Your task to perform on an android device: Open Youtube and go to the subscriptions tab Image 0: 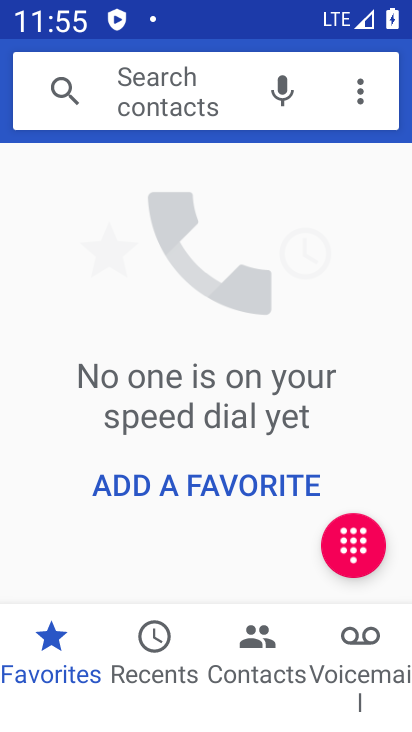
Step 0: press home button
Your task to perform on an android device: Open Youtube and go to the subscriptions tab Image 1: 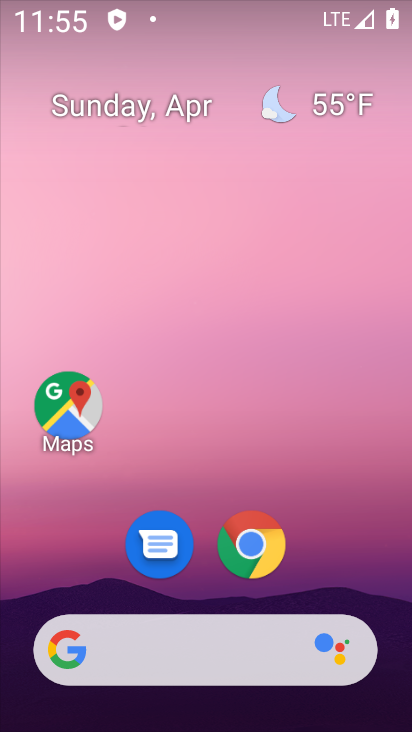
Step 1: drag from (319, 535) to (116, 135)
Your task to perform on an android device: Open Youtube and go to the subscriptions tab Image 2: 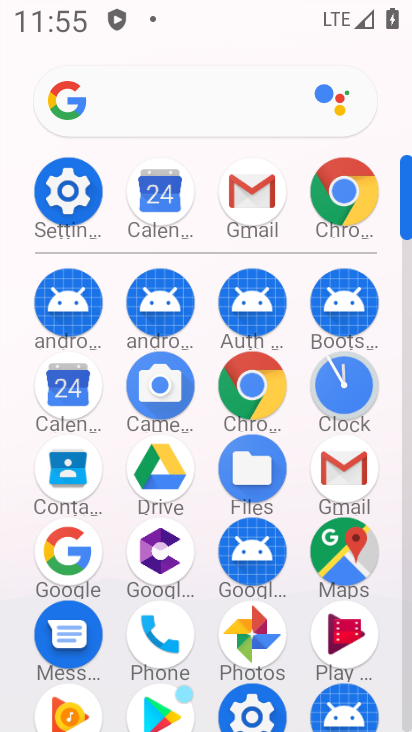
Step 2: drag from (207, 488) to (210, 148)
Your task to perform on an android device: Open Youtube and go to the subscriptions tab Image 3: 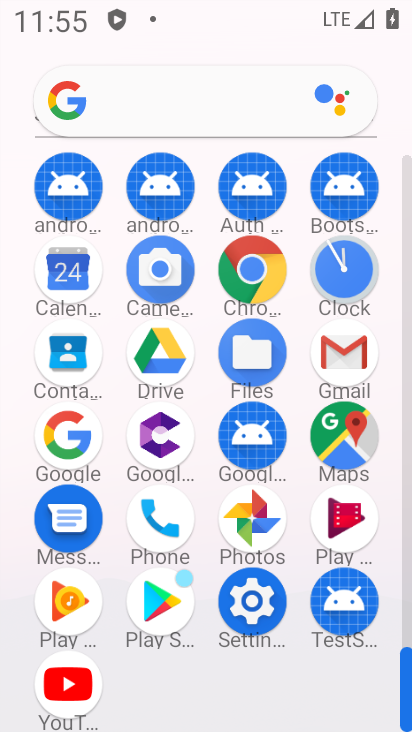
Step 3: click (58, 682)
Your task to perform on an android device: Open Youtube and go to the subscriptions tab Image 4: 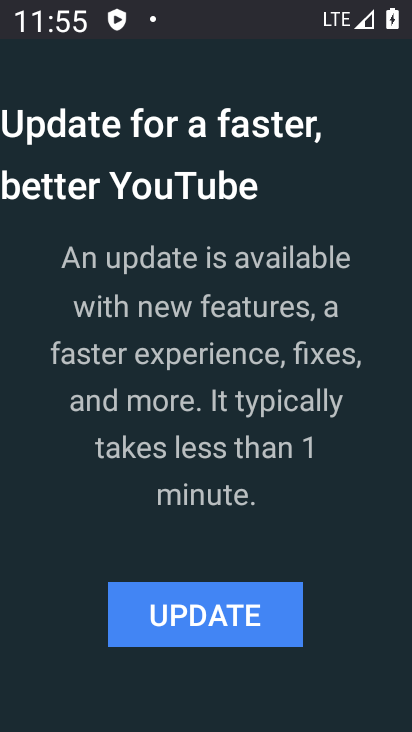
Step 4: click (204, 608)
Your task to perform on an android device: Open Youtube and go to the subscriptions tab Image 5: 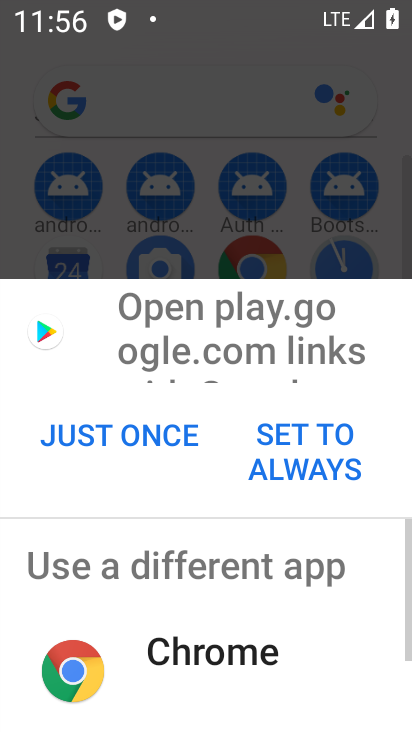
Step 5: click (138, 433)
Your task to perform on an android device: Open Youtube and go to the subscriptions tab Image 6: 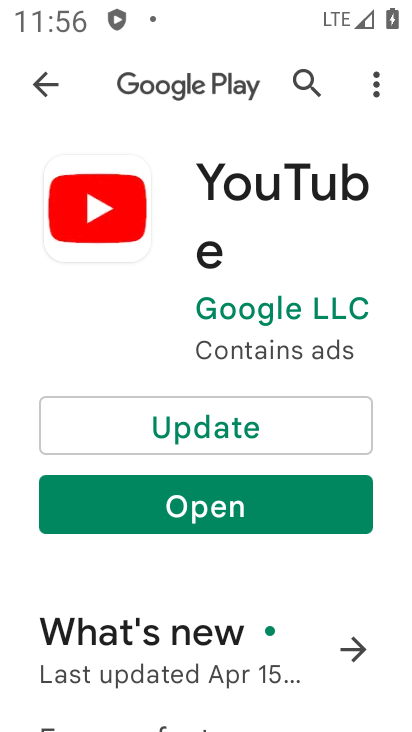
Step 6: click (138, 433)
Your task to perform on an android device: Open Youtube and go to the subscriptions tab Image 7: 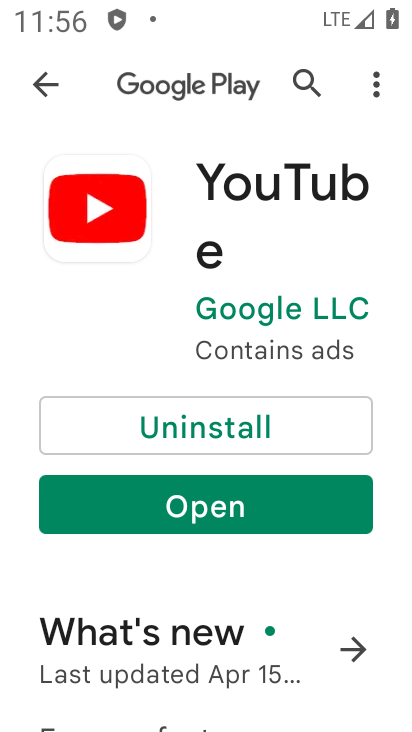
Step 7: click (221, 509)
Your task to perform on an android device: Open Youtube and go to the subscriptions tab Image 8: 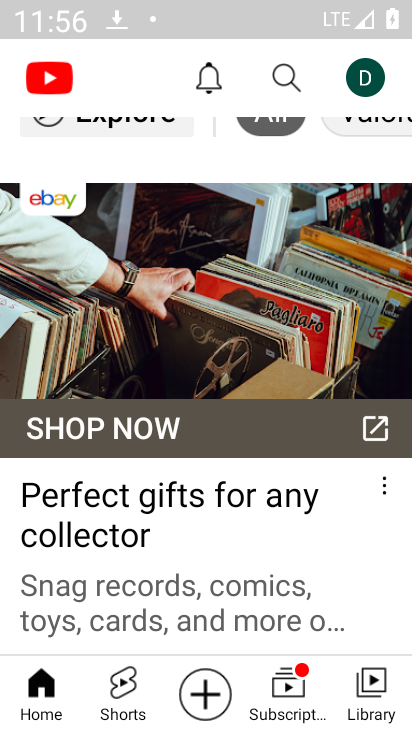
Step 8: click (279, 683)
Your task to perform on an android device: Open Youtube and go to the subscriptions tab Image 9: 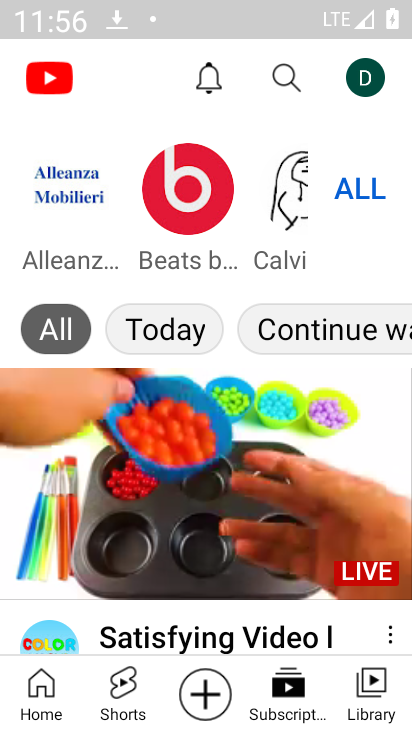
Step 9: task complete